Your task to perform on an android device: turn smart compose on in the gmail app Image 0: 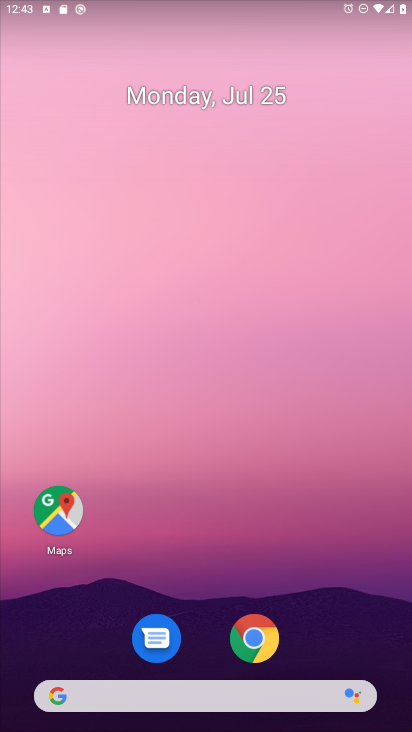
Step 0: drag from (196, 649) to (228, 31)
Your task to perform on an android device: turn smart compose on in the gmail app Image 1: 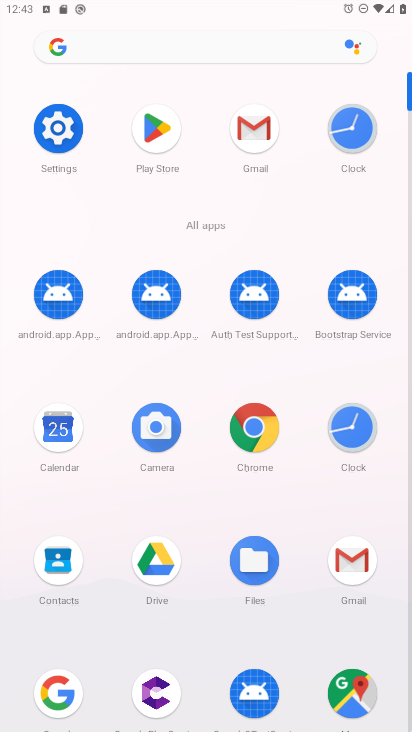
Step 1: click (248, 106)
Your task to perform on an android device: turn smart compose on in the gmail app Image 2: 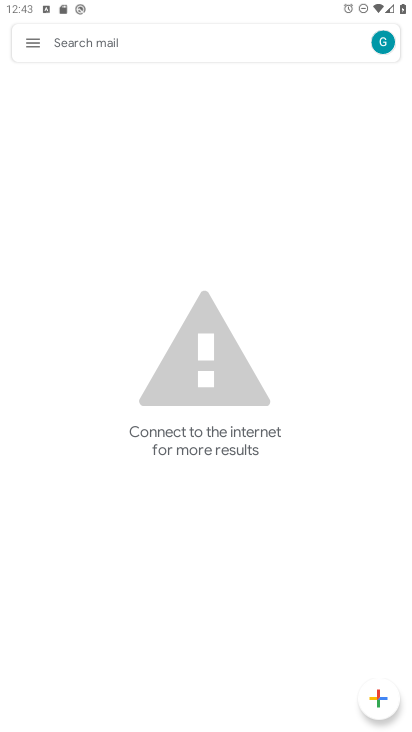
Step 2: click (15, 37)
Your task to perform on an android device: turn smart compose on in the gmail app Image 3: 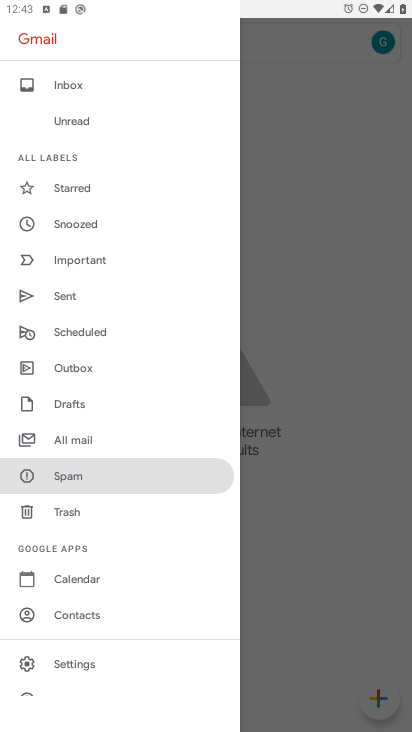
Step 3: click (86, 657)
Your task to perform on an android device: turn smart compose on in the gmail app Image 4: 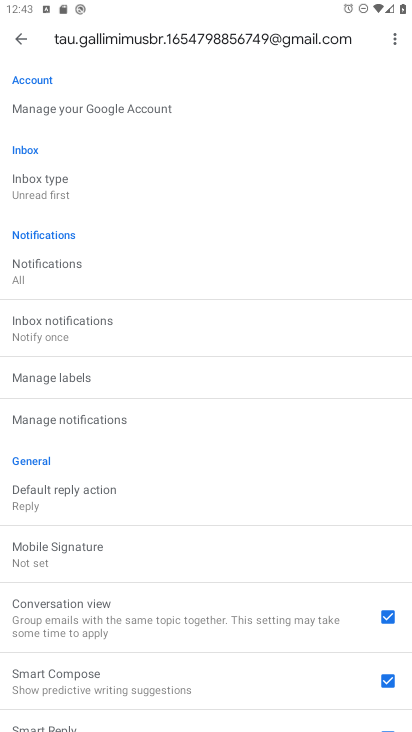
Step 4: task complete